Your task to perform on an android device: turn on bluetooth scan Image 0: 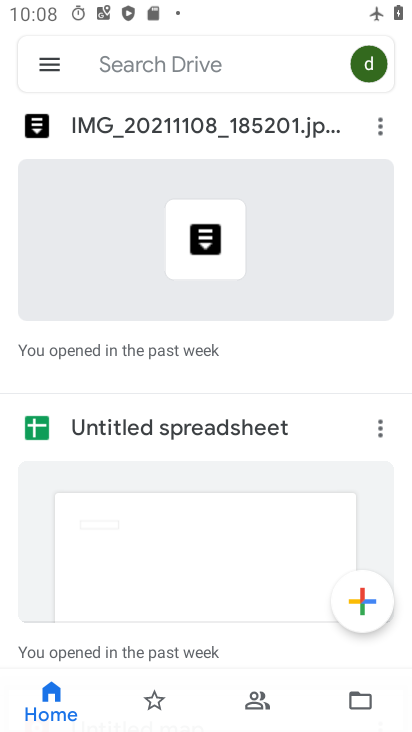
Step 0: press back button
Your task to perform on an android device: turn on bluetooth scan Image 1: 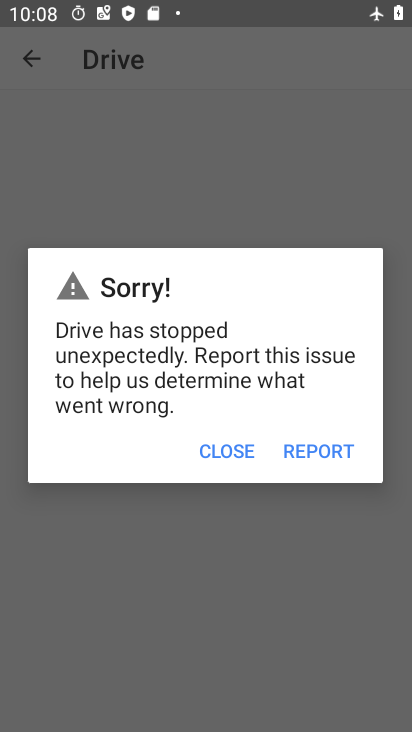
Step 1: press back button
Your task to perform on an android device: turn on bluetooth scan Image 2: 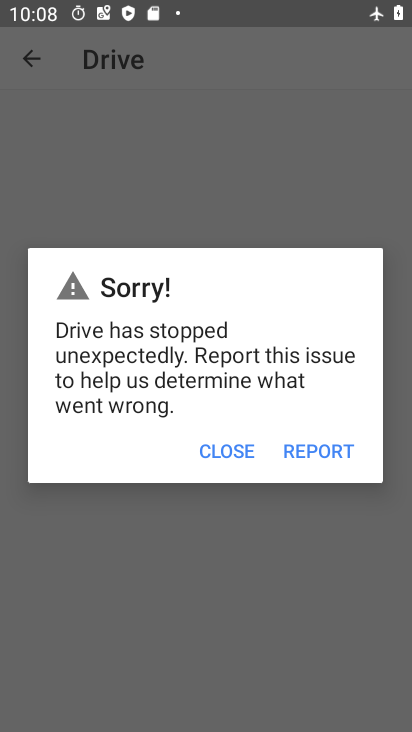
Step 2: press home button
Your task to perform on an android device: turn on bluetooth scan Image 3: 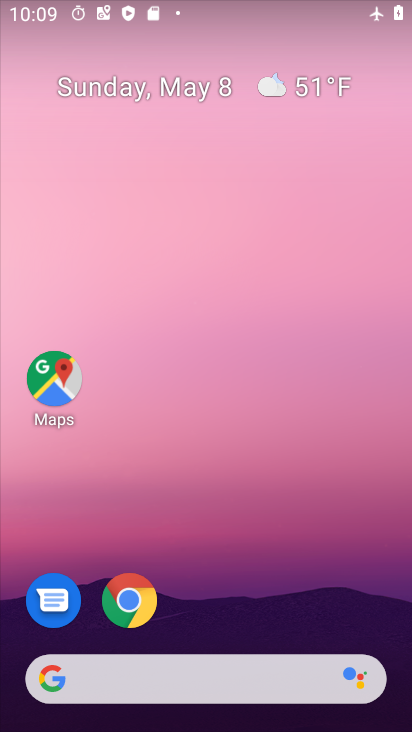
Step 3: drag from (261, 608) to (249, 38)
Your task to perform on an android device: turn on bluetooth scan Image 4: 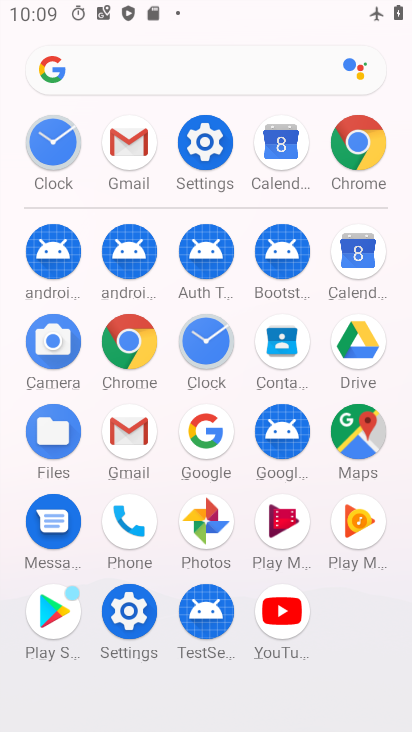
Step 4: click (128, 610)
Your task to perform on an android device: turn on bluetooth scan Image 5: 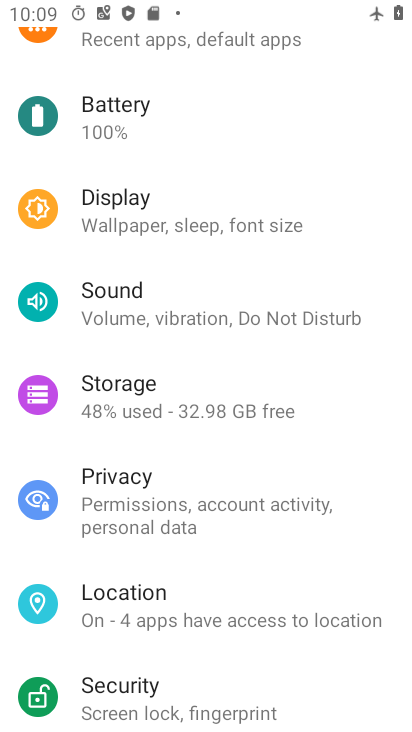
Step 5: click (213, 623)
Your task to perform on an android device: turn on bluetooth scan Image 6: 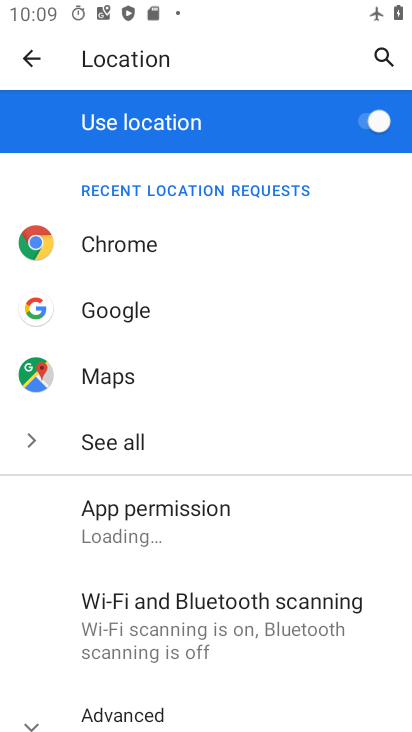
Step 6: drag from (299, 574) to (298, 178)
Your task to perform on an android device: turn on bluetooth scan Image 7: 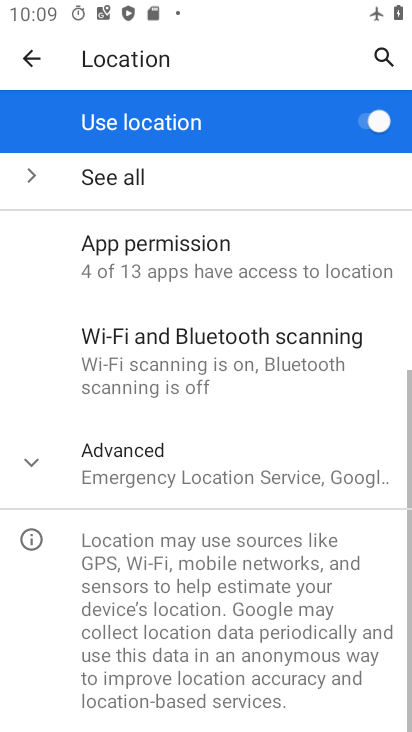
Step 7: click (210, 385)
Your task to perform on an android device: turn on bluetooth scan Image 8: 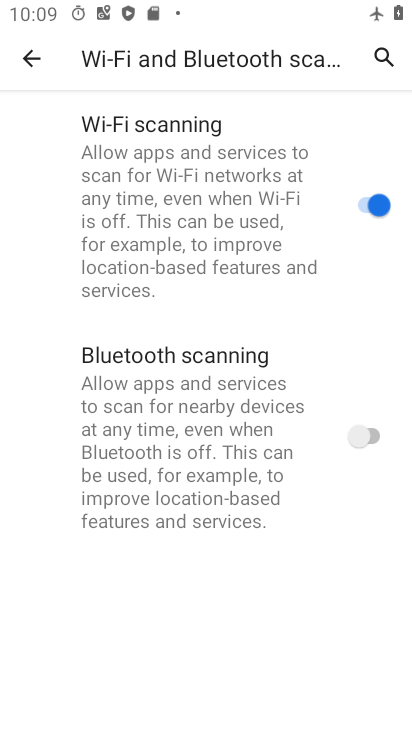
Step 8: click (362, 433)
Your task to perform on an android device: turn on bluetooth scan Image 9: 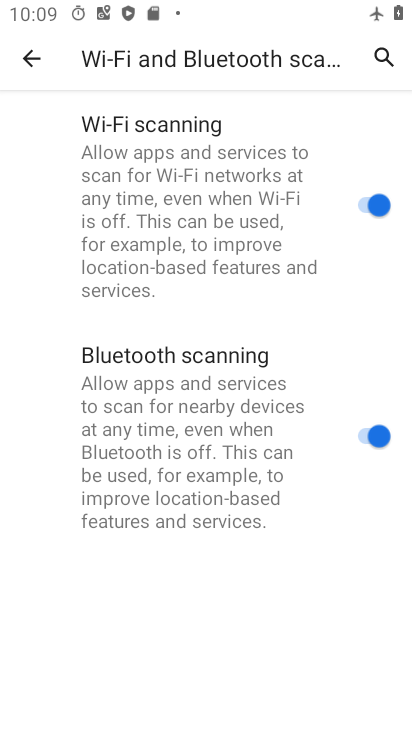
Step 9: task complete